Your task to perform on an android device: change the clock display to analog Image 0: 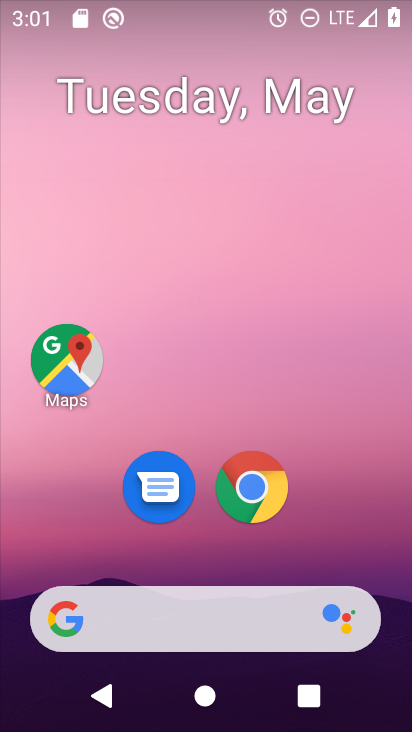
Step 0: drag from (25, 505) to (201, 143)
Your task to perform on an android device: change the clock display to analog Image 1: 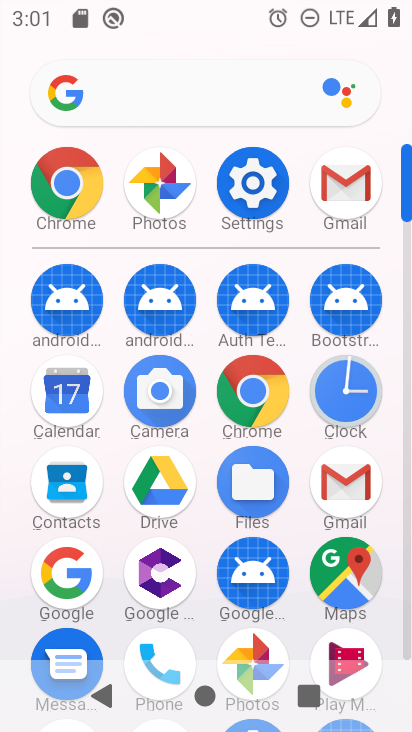
Step 1: click (343, 420)
Your task to perform on an android device: change the clock display to analog Image 2: 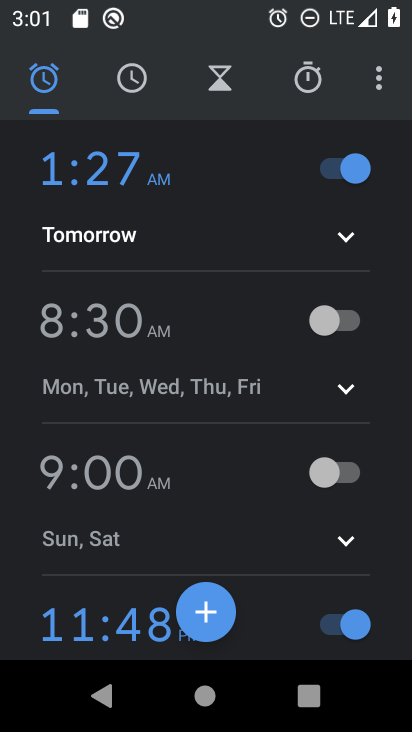
Step 2: click (369, 73)
Your task to perform on an android device: change the clock display to analog Image 3: 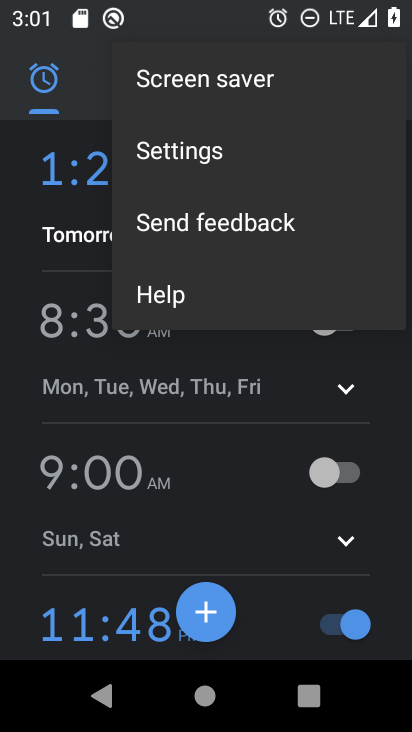
Step 3: click (273, 139)
Your task to perform on an android device: change the clock display to analog Image 4: 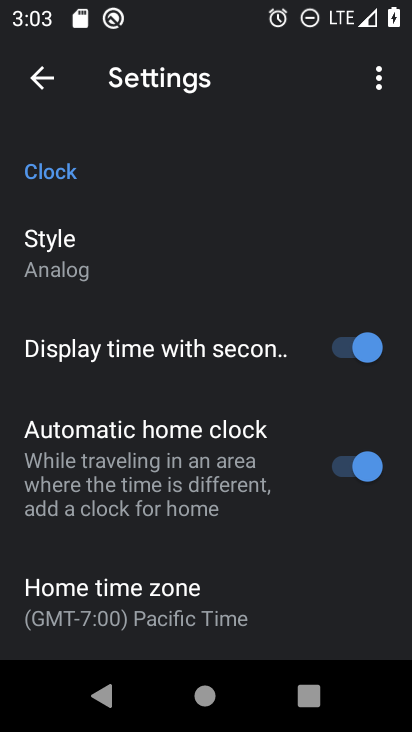
Step 4: task complete